Your task to perform on an android device: change text size in settings app Image 0: 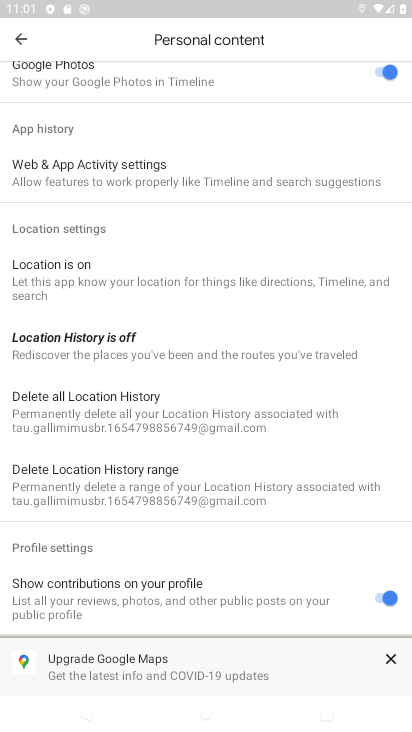
Step 0: press home button
Your task to perform on an android device: change text size in settings app Image 1: 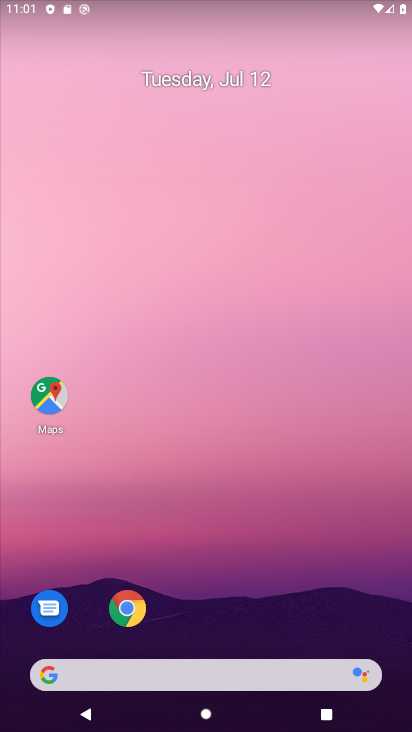
Step 1: drag from (224, 666) to (224, 220)
Your task to perform on an android device: change text size in settings app Image 2: 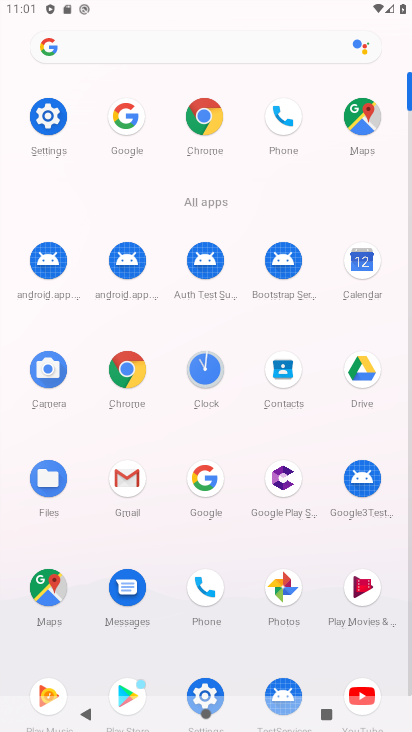
Step 2: click (203, 685)
Your task to perform on an android device: change text size in settings app Image 3: 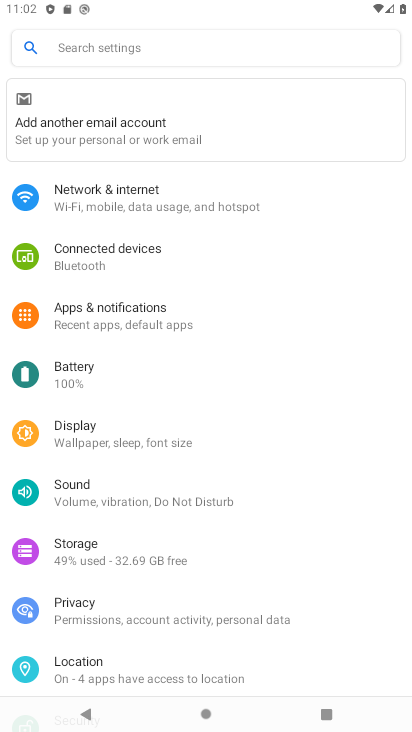
Step 3: click (118, 437)
Your task to perform on an android device: change text size in settings app Image 4: 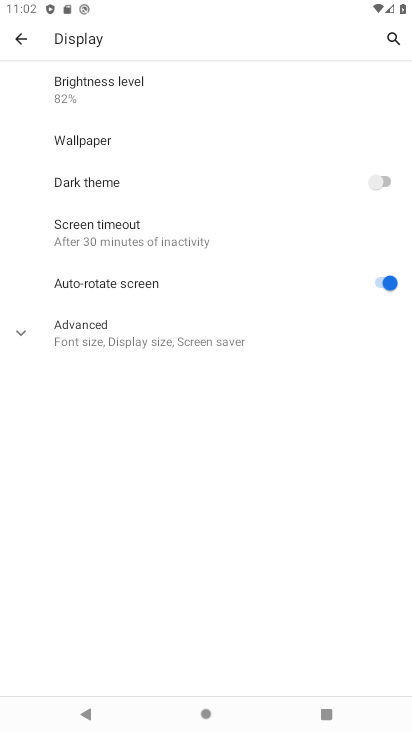
Step 4: click (128, 337)
Your task to perform on an android device: change text size in settings app Image 5: 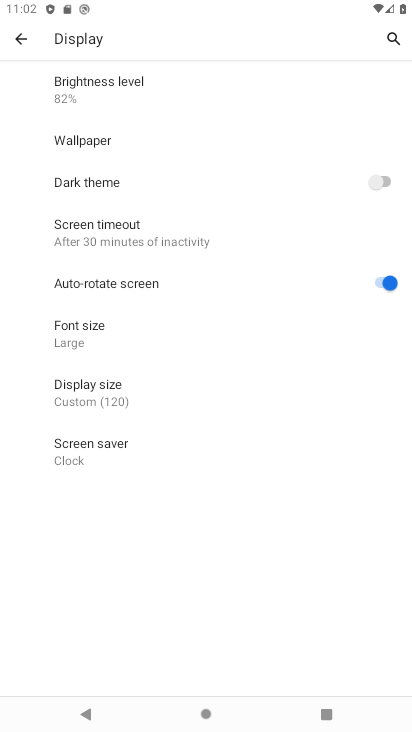
Step 5: click (73, 329)
Your task to perform on an android device: change text size in settings app Image 6: 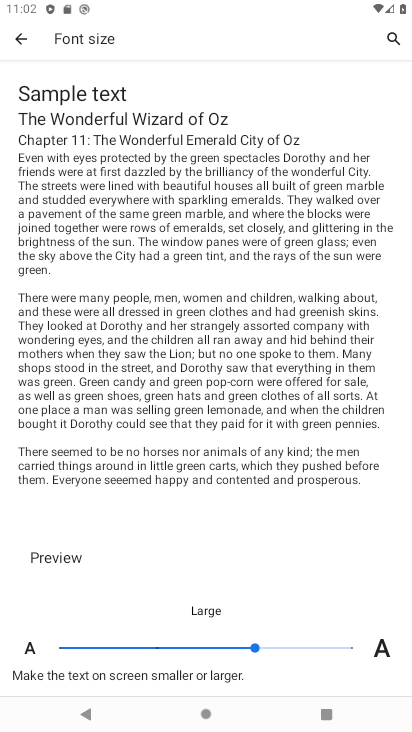
Step 6: click (353, 648)
Your task to perform on an android device: change text size in settings app Image 7: 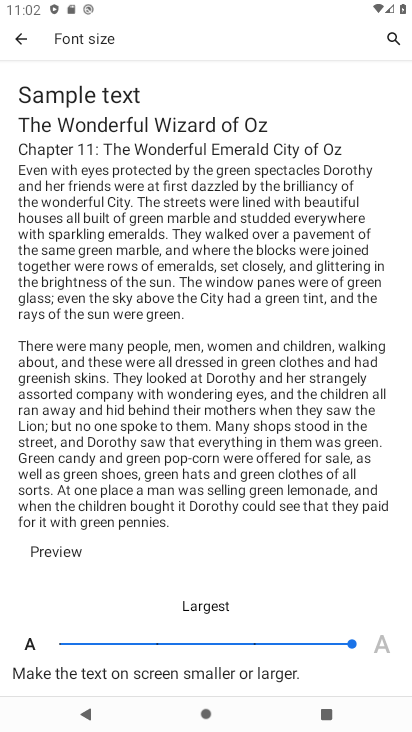
Step 7: task complete